Your task to perform on an android device: show emergency info Image 0: 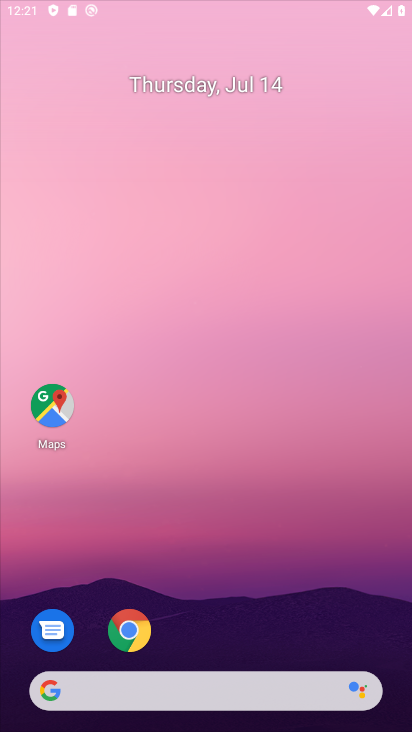
Step 0: drag from (224, 627) to (266, 260)
Your task to perform on an android device: show emergency info Image 1: 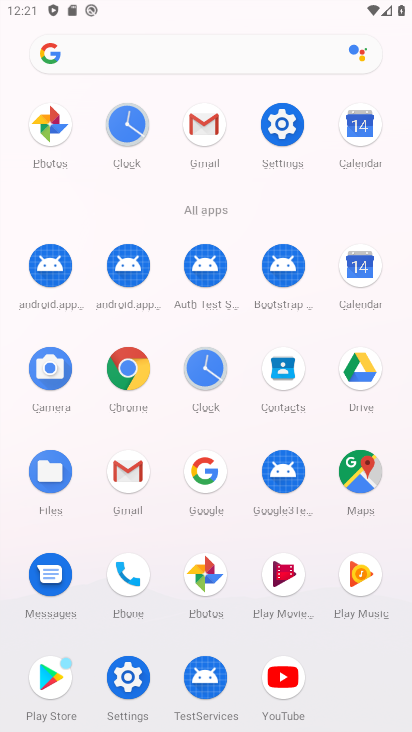
Step 1: click (278, 130)
Your task to perform on an android device: show emergency info Image 2: 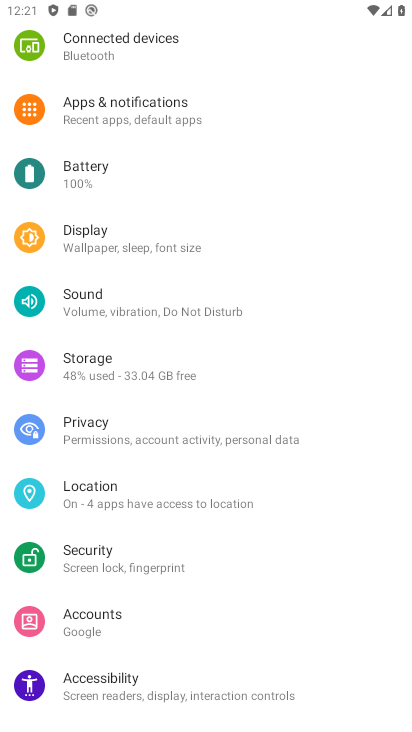
Step 2: drag from (192, 691) to (235, 291)
Your task to perform on an android device: show emergency info Image 3: 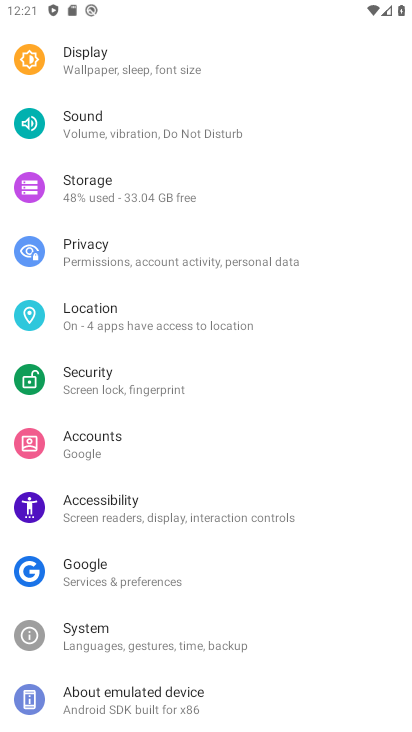
Step 3: click (139, 699)
Your task to perform on an android device: show emergency info Image 4: 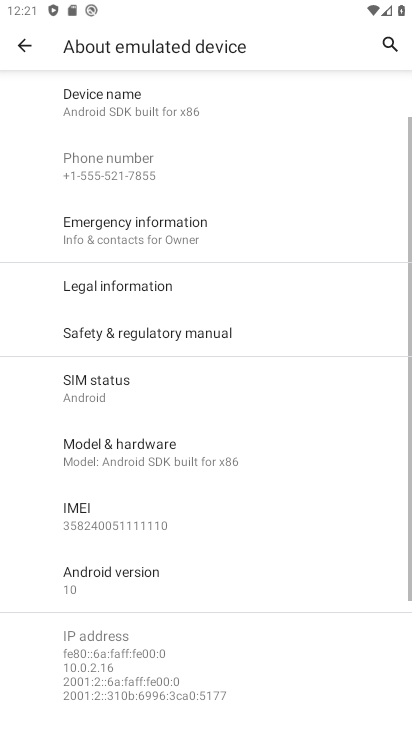
Step 4: click (120, 236)
Your task to perform on an android device: show emergency info Image 5: 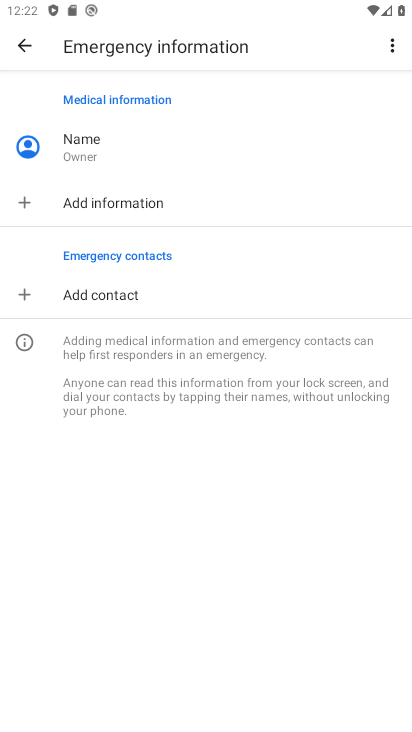
Step 5: task complete